Your task to perform on an android device: When is my next appointment? Image 0: 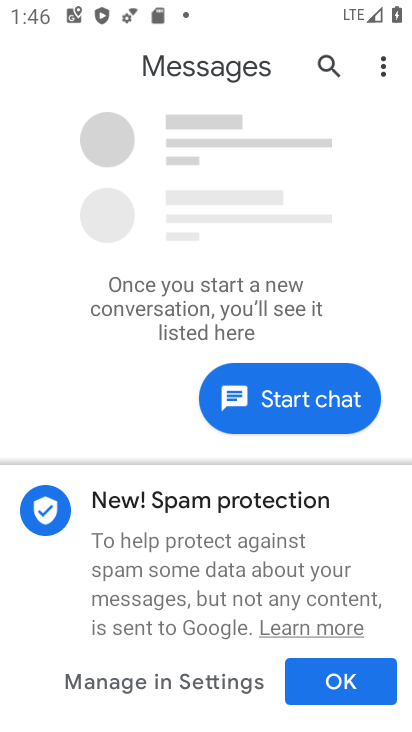
Step 0: press home button
Your task to perform on an android device: When is my next appointment? Image 1: 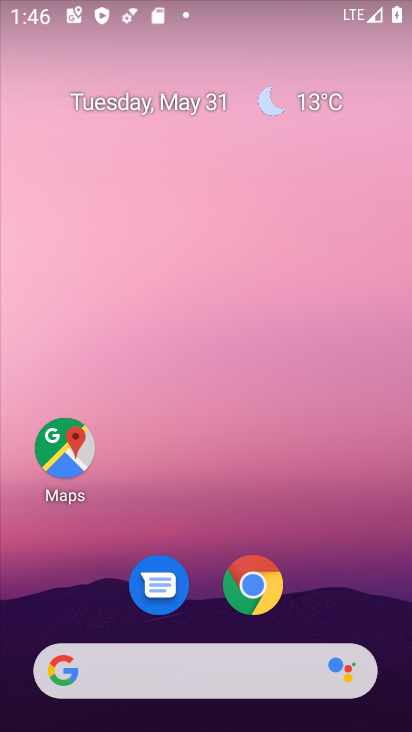
Step 1: drag from (210, 513) to (208, 29)
Your task to perform on an android device: When is my next appointment? Image 2: 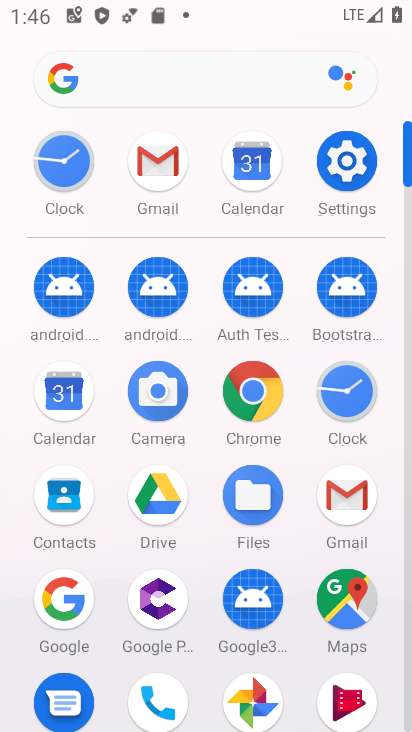
Step 2: click (58, 385)
Your task to perform on an android device: When is my next appointment? Image 3: 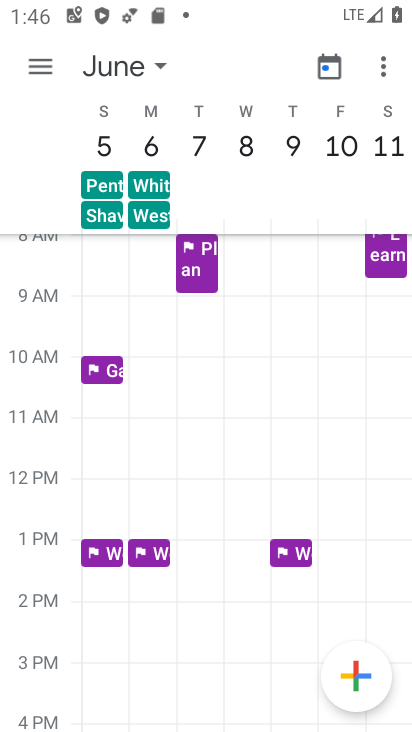
Step 3: drag from (150, 315) to (388, 425)
Your task to perform on an android device: When is my next appointment? Image 4: 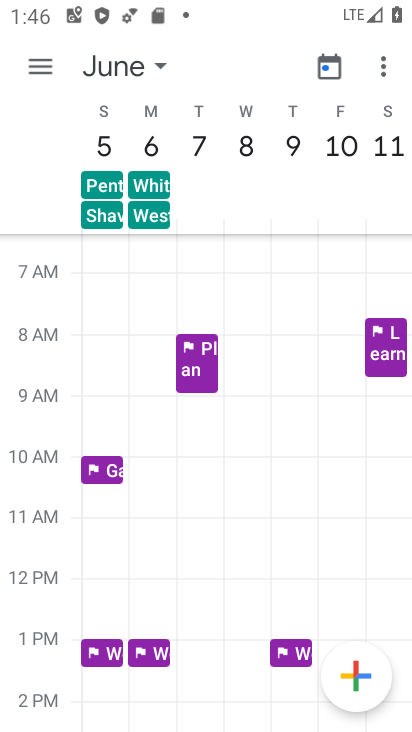
Step 4: drag from (95, 269) to (409, 322)
Your task to perform on an android device: When is my next appointment? Image 5: 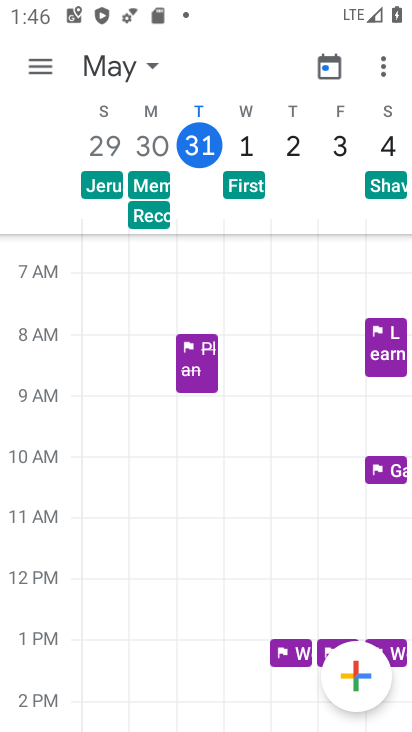
Step 5: click (170, 139)
Your task to perform on an android device: When is my next appointment? Image 6: 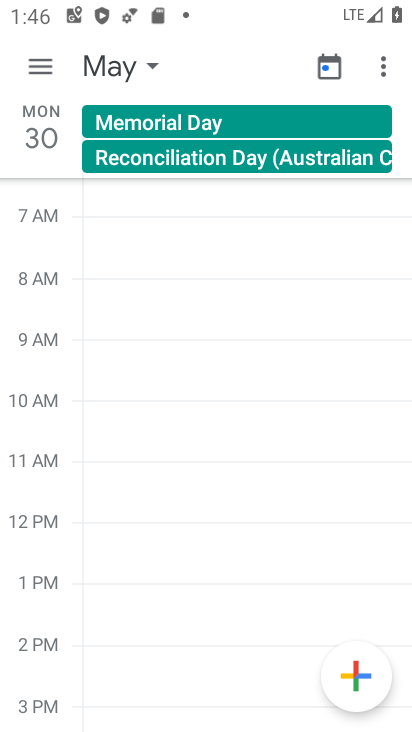
Step 6: drag from (143, 244) to (155, 490)
Your task to perform on an android device: When is my next appointment? Image 7: 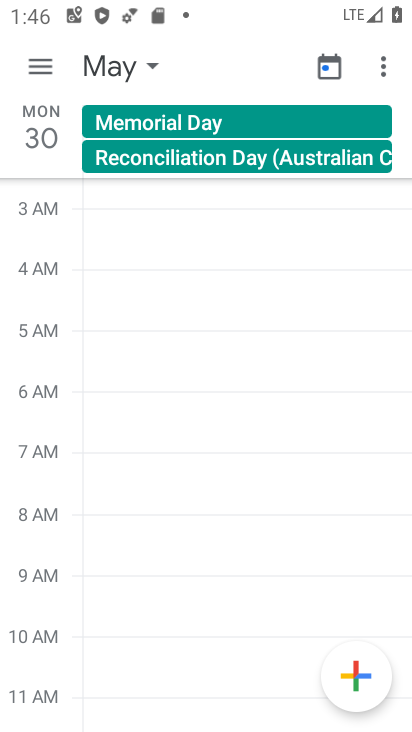
Step 7: click (35, 57)
Your task to perform on an android device: When is my next appointment? Image 8: 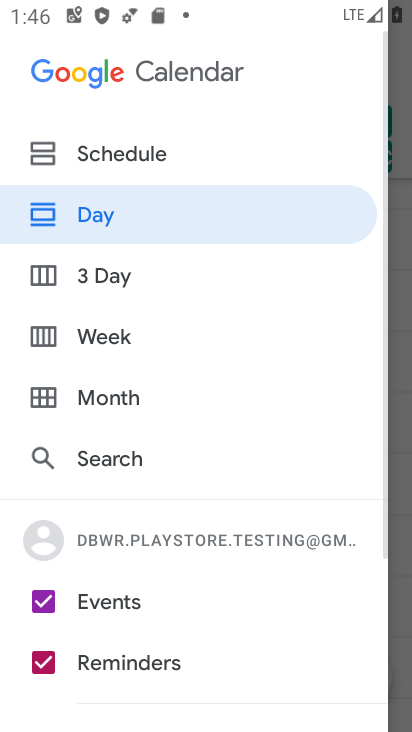
Step 8: click (109, 146)
Your task to perform on an android device: When is my next appointment? Image 9: 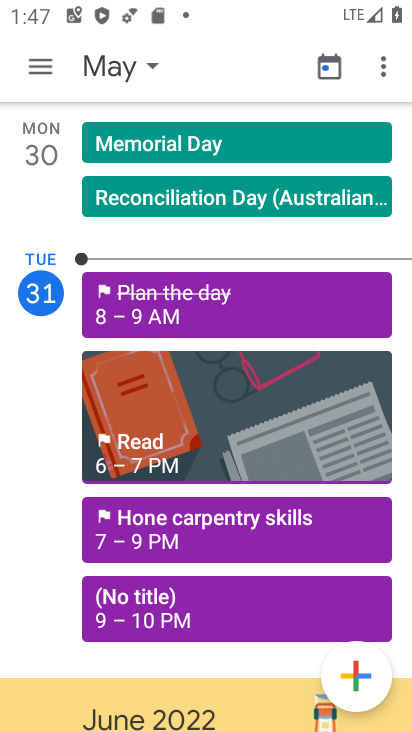
Step 9: task complete